Your task to perform on an android device: What's on my calendar tomorrow? Image 0: 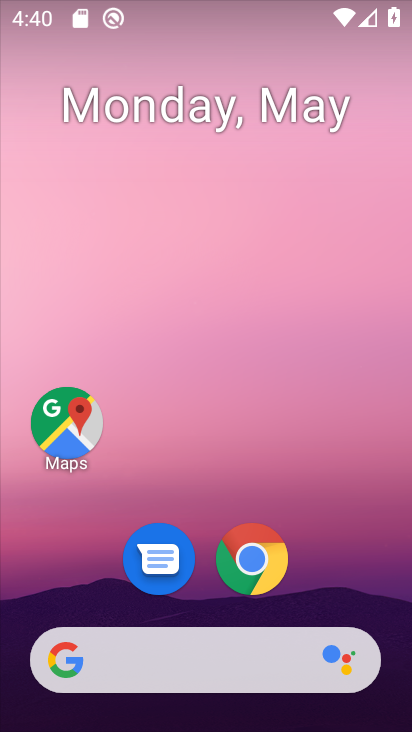
Step 0: drag from (254, 644) to (334, 62)
Your task to perform on an android device: What's on my calendar tomorrow? Image 1: 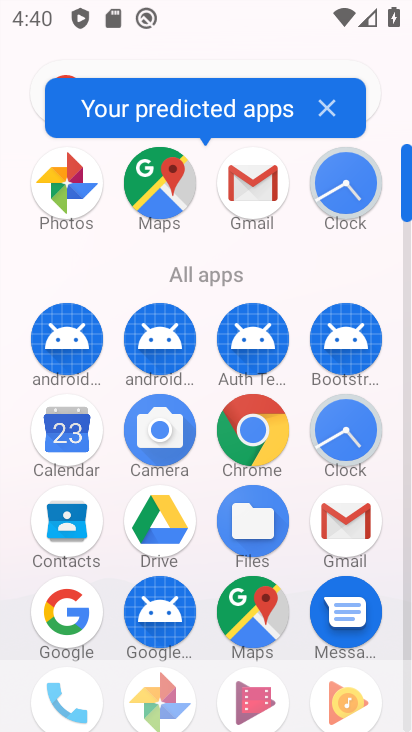
Step 1: click (64, 445)
Your task to perform on an android device: What's on my calendar tomorrow? Image 2: 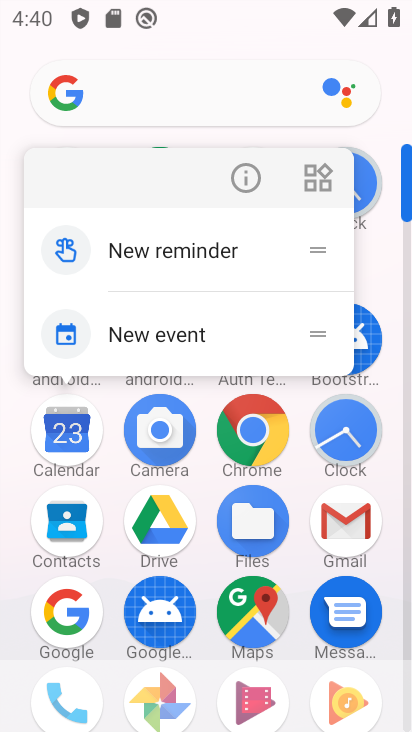
Step 2: click (70, 429)
Your task to perform on an android device: What's on my calendar tomorrow? Image 3: 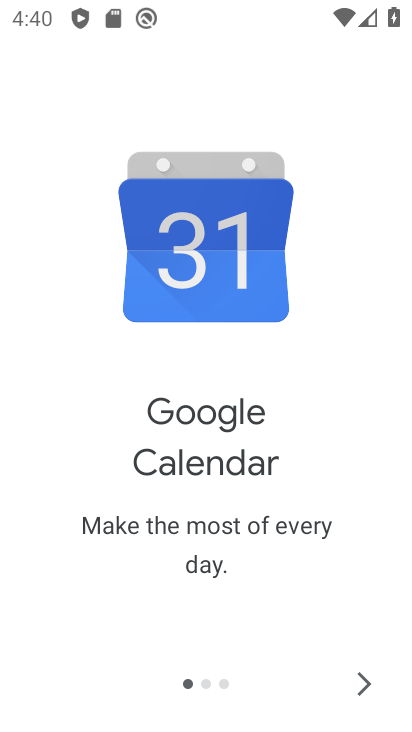
Step 3: click (347, 684)
Your task to perform on an android device: What's on my calendar tomorrow? Image 4: 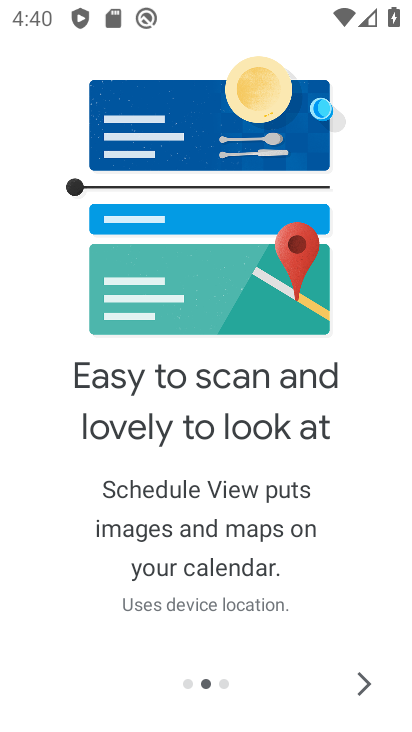
Step 4: click (359, 684)
Your task to perform on an android device: What's on my calendar tomorrow? Image 5: 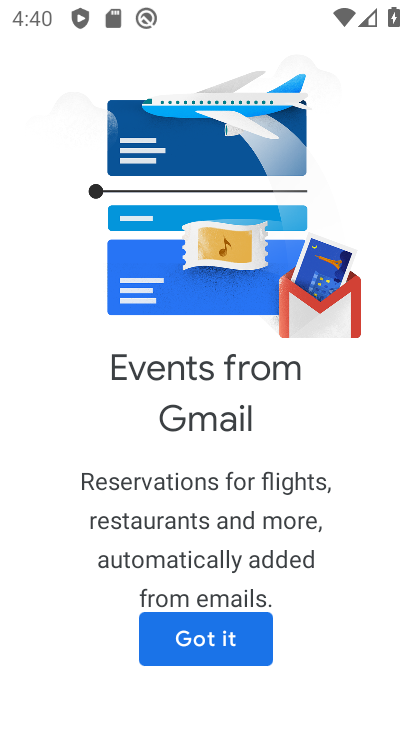
Step 5: click (359, 684)
Your task to perform on an android device: What's on my calendar tomorrow? Image 6: 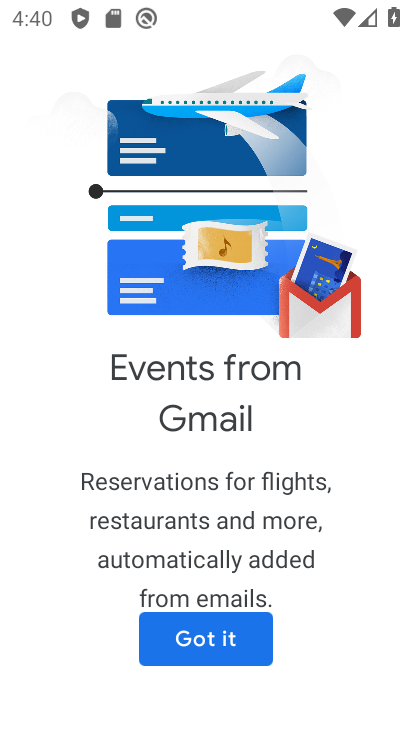
Step 6: click (258, 658)
Your task to perform on an android device: What's on my calendar tomorrow? Image 7: 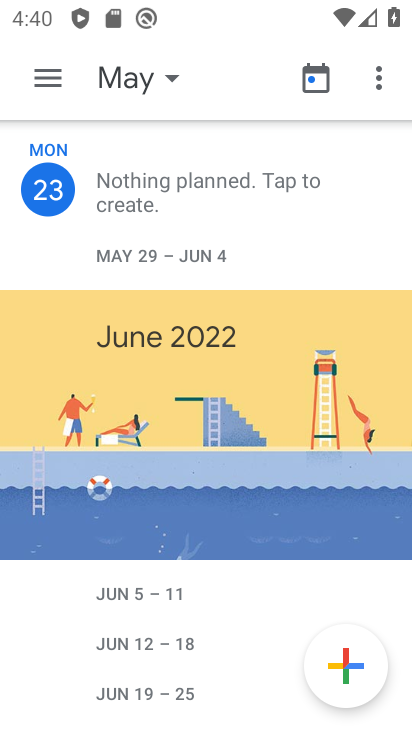
Step 7: click (170, 74)
Your task to perform on an android device: What's on my calendar tomorrow? Image 8: 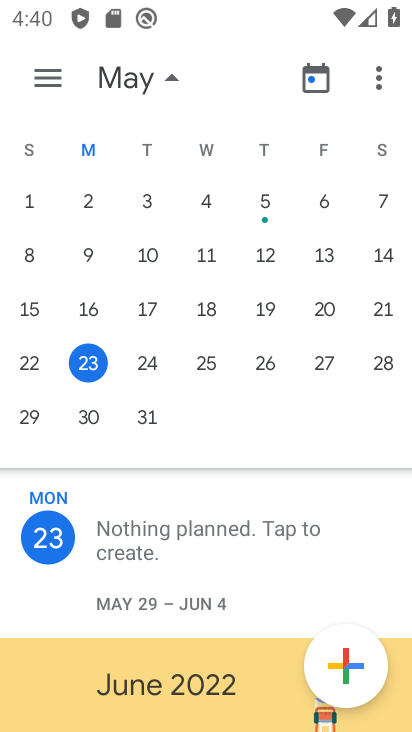
Step 8: click (149, 362)
Your task to perform on an android device: What's on my calendar tomorrow? Image 9: 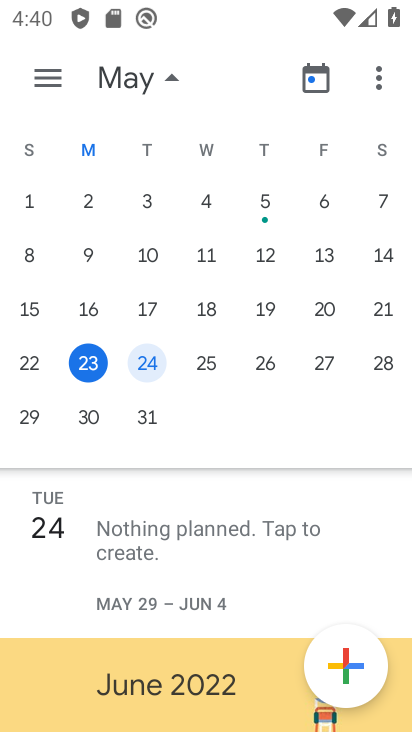
Step 9: click (145, 366)
Your task to perform on an android device: What's on my calendar tomorrow? Image 10: 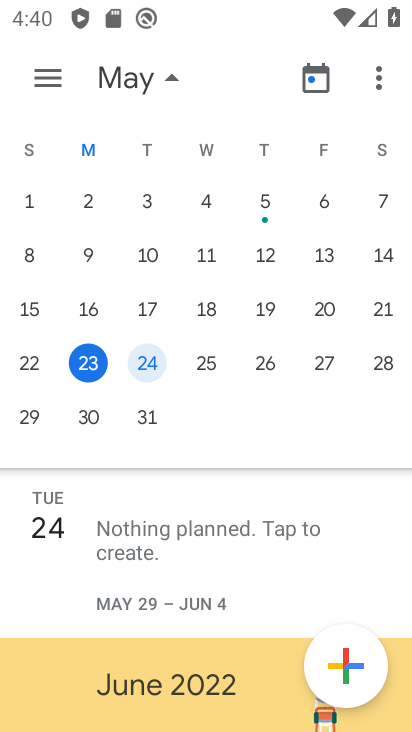
Step 10: task complete